Your task to perform on an android device: What's the weather? Image 0: 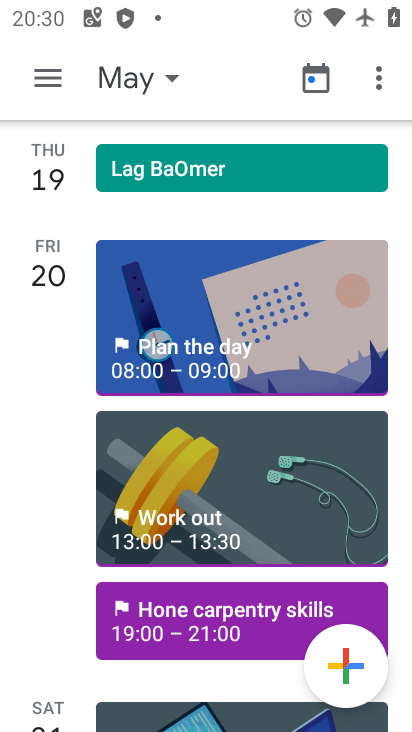
Step 0: press home button
Your task to perform on an android device: What's the weather? Image 1: 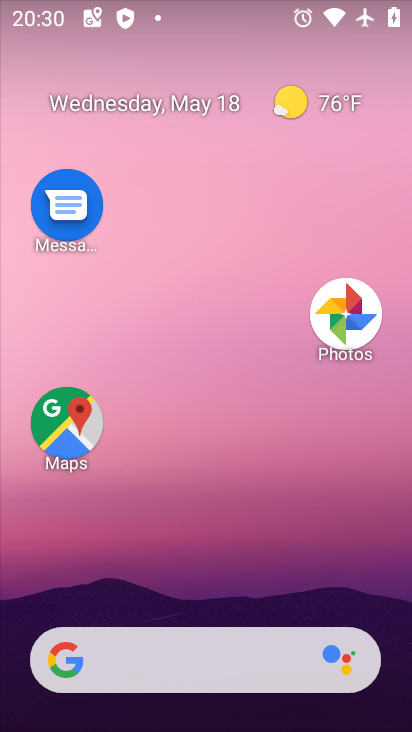
Step 1: drag from (199, 628) to (262, 2)
Your task to perform on an android device: What's the weather? Image 2: 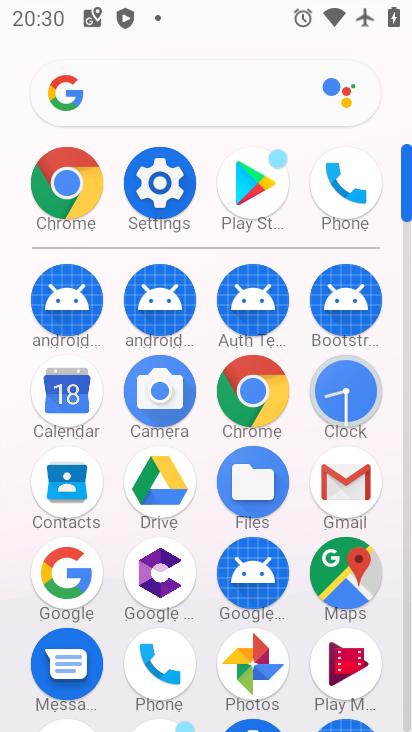
Step 2: drag from (211, 645) to (175, 173)
Your task to perform on an android device: What's the weather? Image 3: 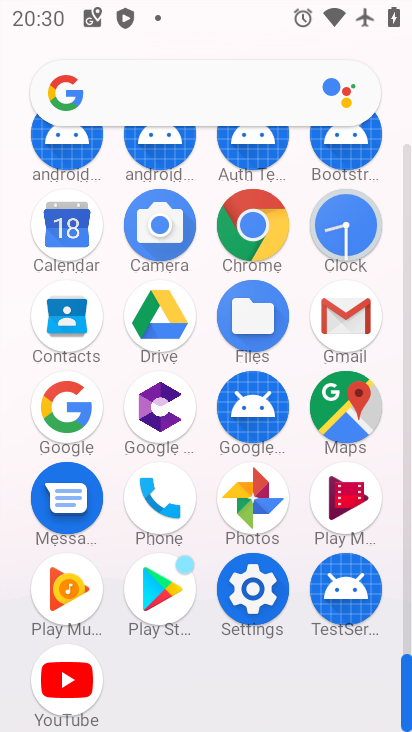
Step 3: click (77, 409)
Your task to perform on an android device: What's the weather? Image 4: 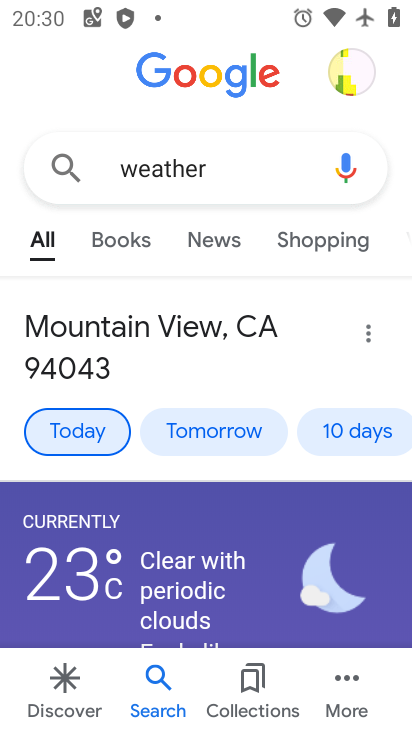
Step 4: task complete